Your task to perform on an android device: toggle translation in the chrome app Image 0: 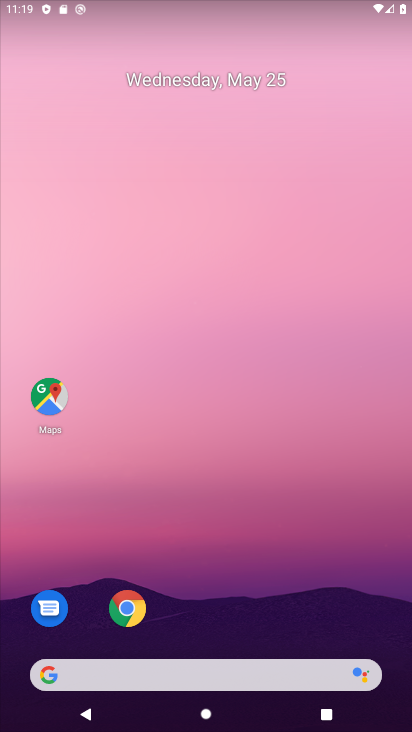
Step 0: click (137, 602)
Your task to perform on an android device: toggle translation in the chrome app Image 1: 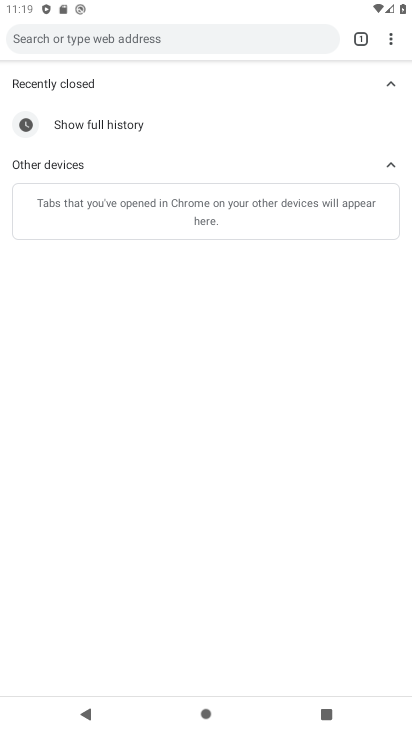
Step 1: click (396, 42)
Your task to perform on an android device: toggle translation in the chrome app Image 2: 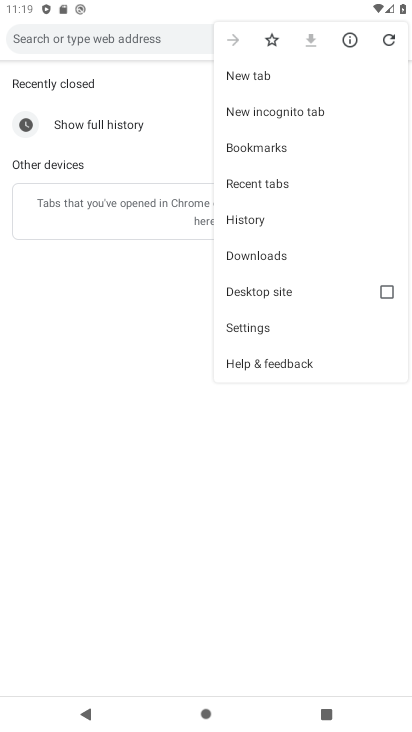
Step 2: click (269, 319)
Your task to perform on an android device: toggle translation in the chrome app Image 3: 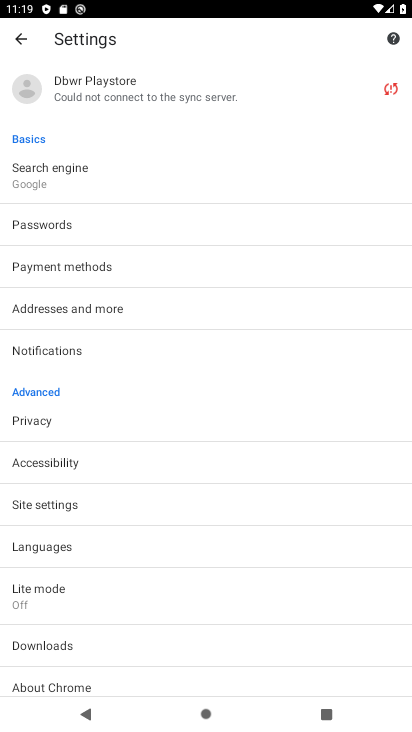
Step 3: click (89, 550)
Your task to perform on an android device: toggle translation in the chrome app Image 4: 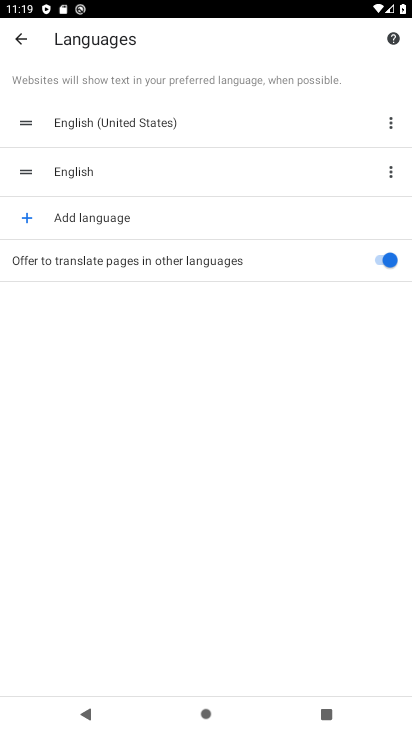
Step 4: click (389, 261)
Your task to perform on an android device: toggle translation in the chrome app Image 5: 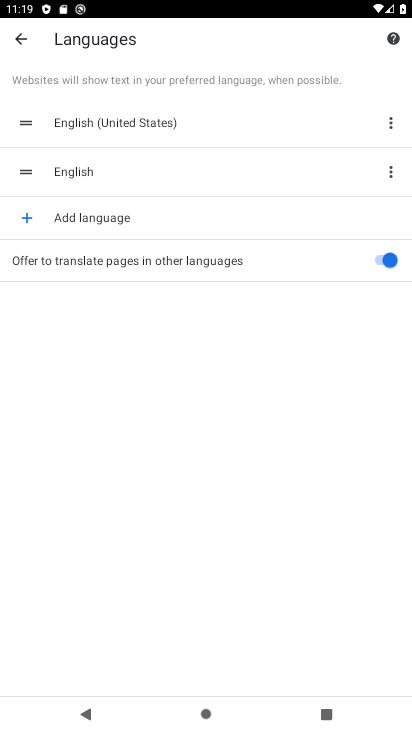
Step 5: click (389, 261)
Your task to perform on an android device: toggle translation in the chrome app Image 6: 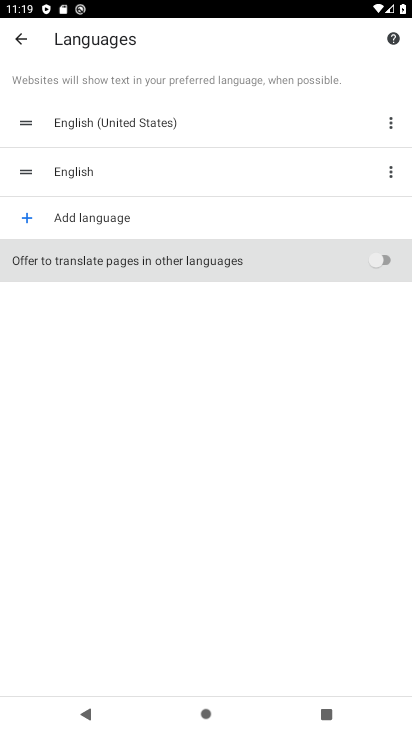
Step 6: click (389, 261)
Your task to perform on an android device: toggle translation in the chrome app Image 7: 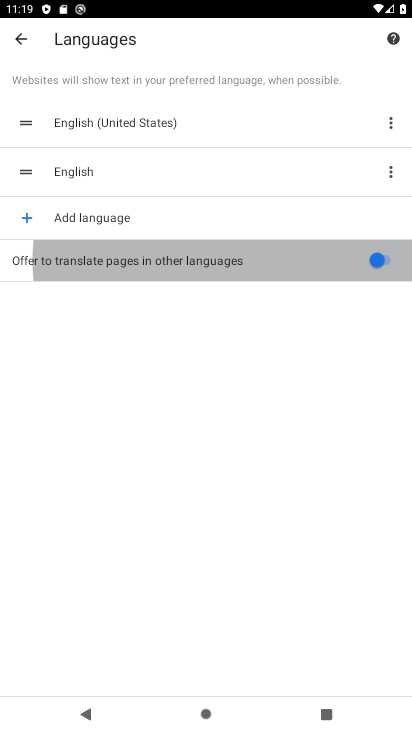
Step 7: click (389, 261)
Your task to perform on an android device: toggle translation in the chrome app Image 8: 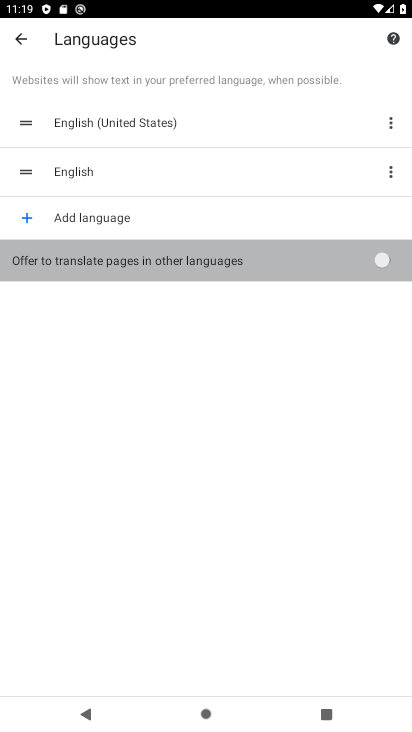
Step 8: click (389, 261)
Your task to perform on an android device: toggle translation in the chrome app Image 9: 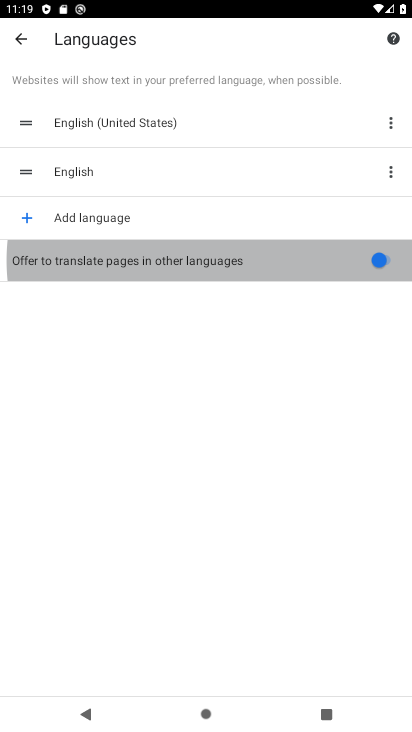
Step 9: click (389, 261)
Your task to perform on an android device: toggle translation in the chrome app Image 10: 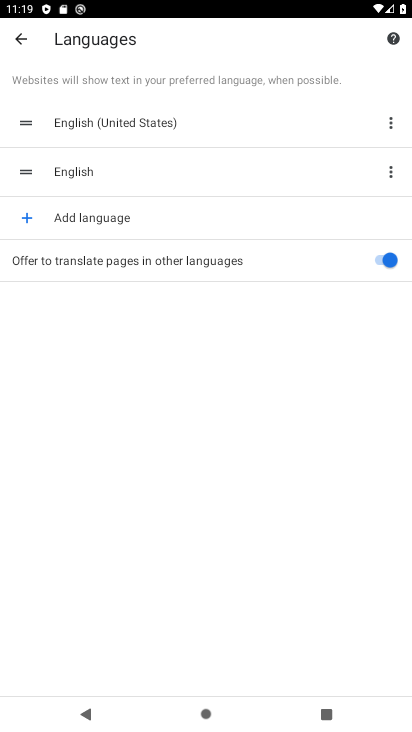
Step 10: task complete